Your task to perform on an android device: Search for seafood restaurants on Google Maps Image 0: 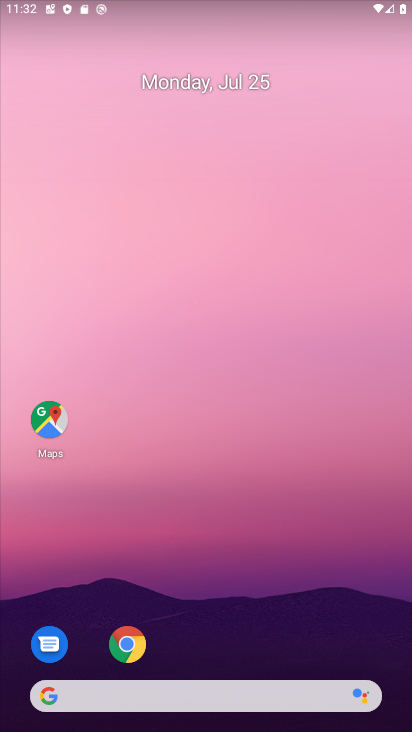
Step 0: drag from (192, 525) to (194, 148)
Your task to perform on an android device: Search for seafood restaurants on Google Maps Image 1: 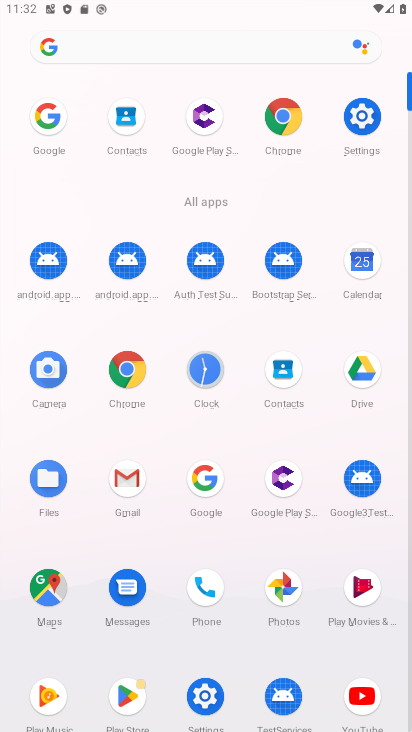
Step 1: drag from (177, 514) to (180, 219)
Your task to perform on an android device: Search for seafood restaurants on Google Maps Image 2: 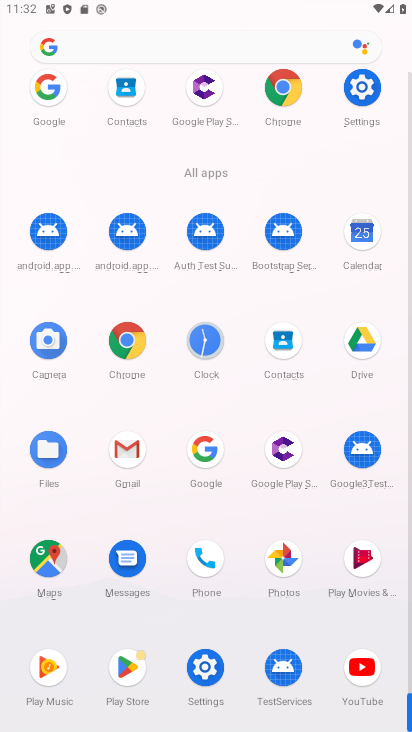
Step 2: click (56, 563)
Your task to perform on an android device: Search for seafood restaurants on Google Maps Image 3: 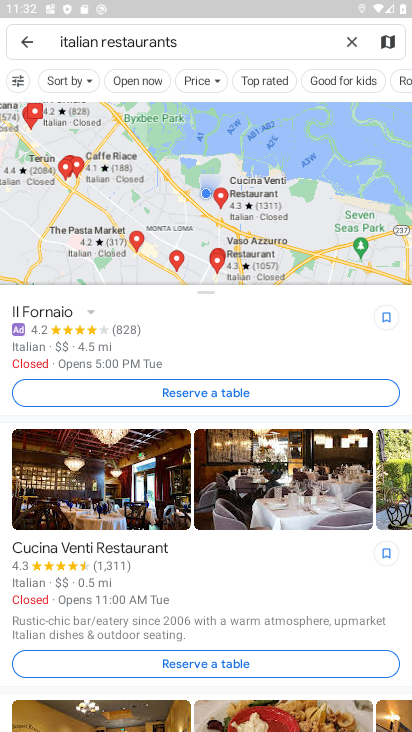
Step 3: click (356, 37)
Your task to perform on an android device: Search for seafood restaurants on Google Maps Image 4: 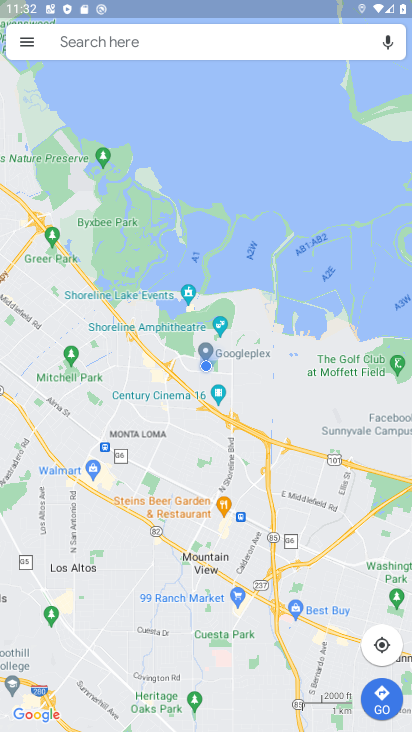
Step 4: click (315, 54)
Your task to perform on an android device: Search for seafood restaurants on Google Maps Image 5: 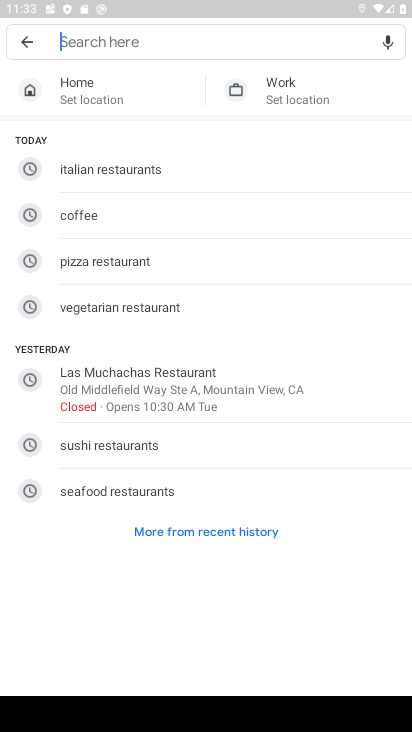
Step 5: click (163, 487)
Your task to perform on an android device: Search for seafood restaurants on Google Maps Image 6: 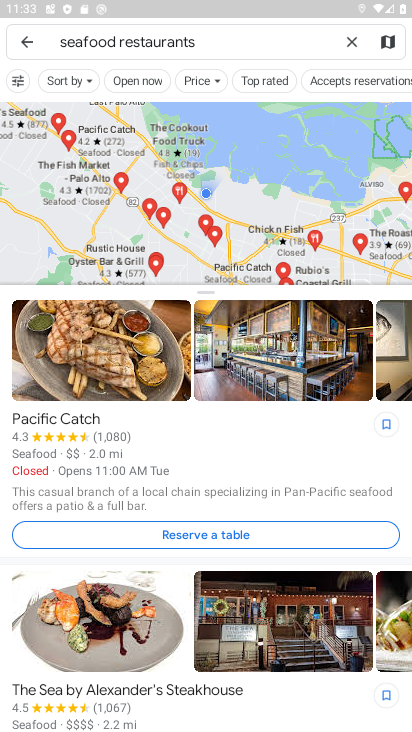
Step 6: task complete